Your task to perform on an android device: What's the weather going to be tomorrow? Image 0: 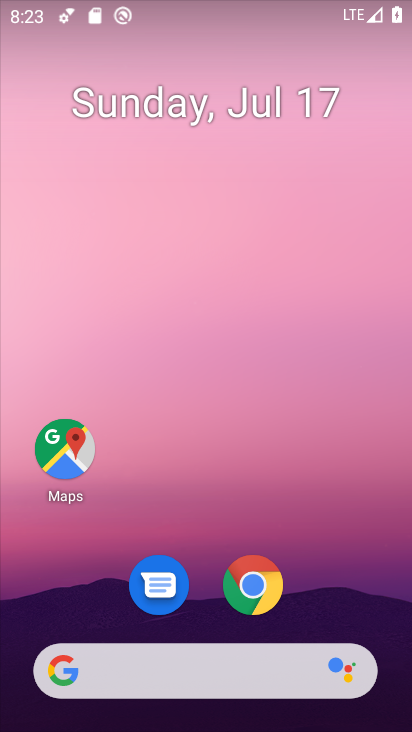
Step 0: drag from (329, 576) to (297, 29)
Your task to perform on an android device: What's the weather going to be tomorrow? Image 1: 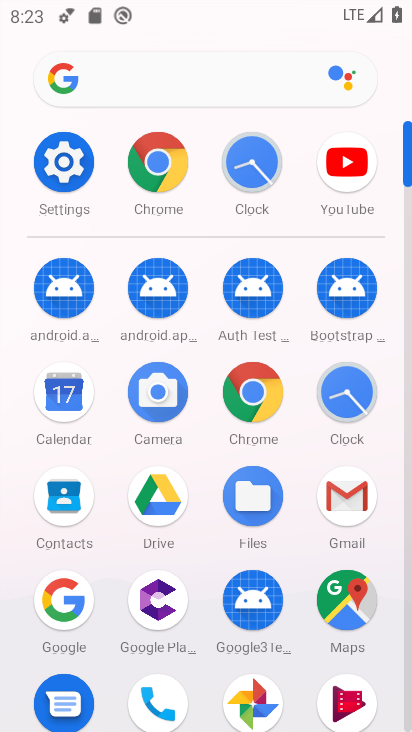
Step 1: click (77, 600)
Your task to perform on an android device: What's the weather going to be tomorrow? Image 2: 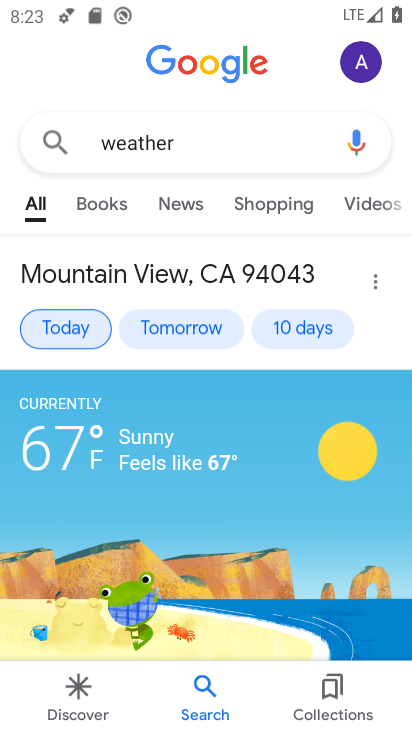
Step 2: click (90, 323)
Your task to perform on an android device: What's the weather going to be tomorrow? Image 3: 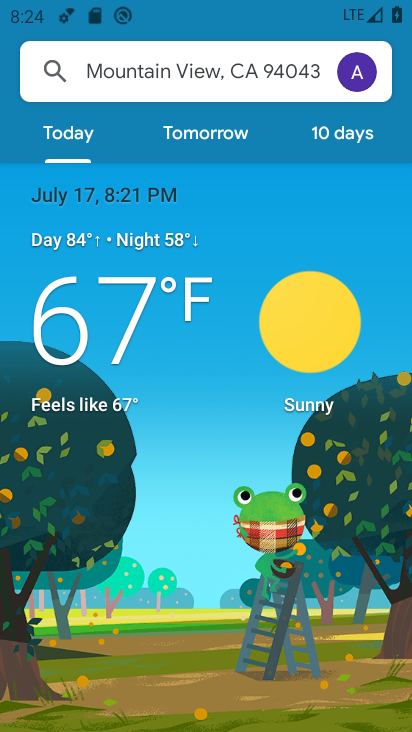
Step 3: click (232, 133)
Your task to perform on an android device: What's the weather going to be tomorrow? Image 4: 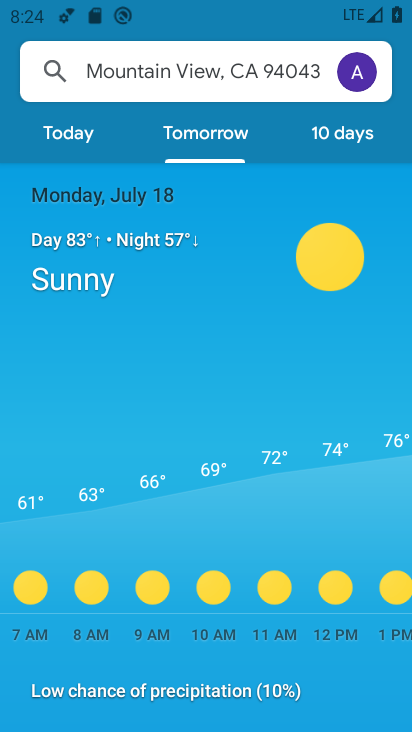
Step 4: task complete